Your task to perform on an android device: check android version Image 0: 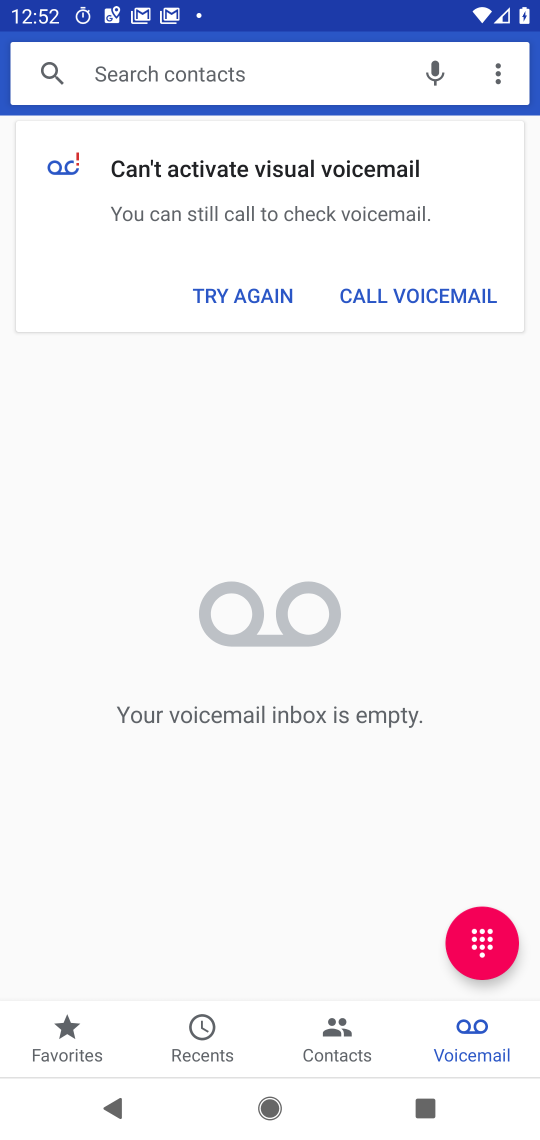
Step 0: press home button
Your task to perform on an android device: check android version Image 1: 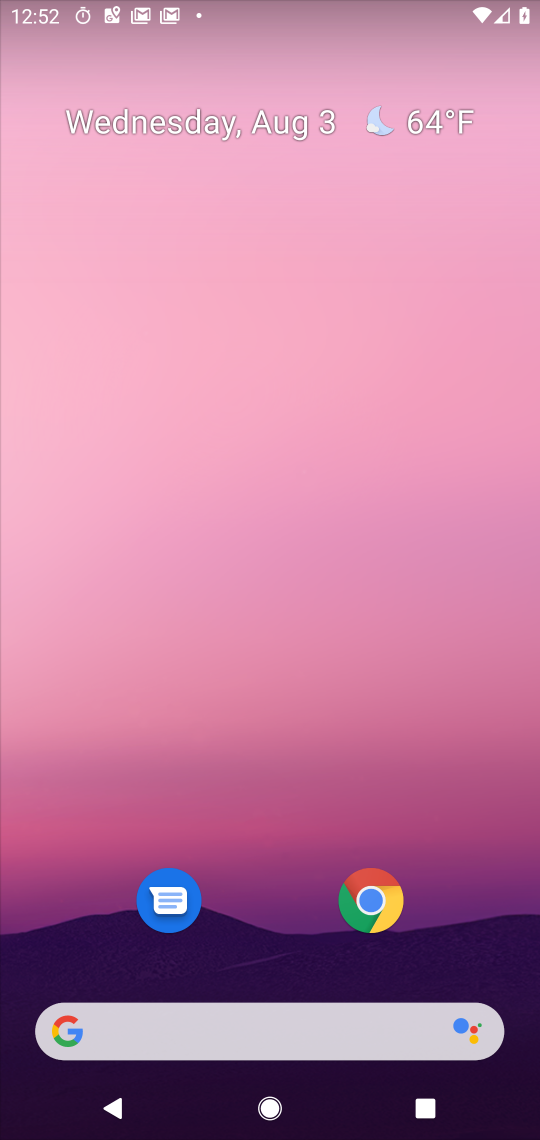
Step 1: drag from (243, 914) to (288, 81)
Your task to perform on an android device: check android version Image 2: 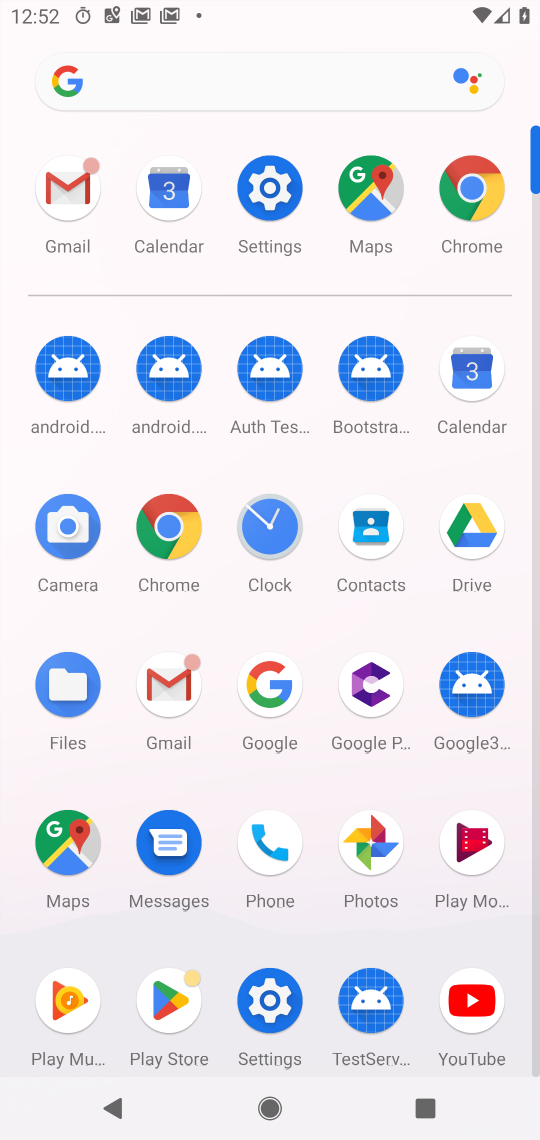
Step 2: click (264, 177)
Your task to perform on an android device: check android version Image 3: 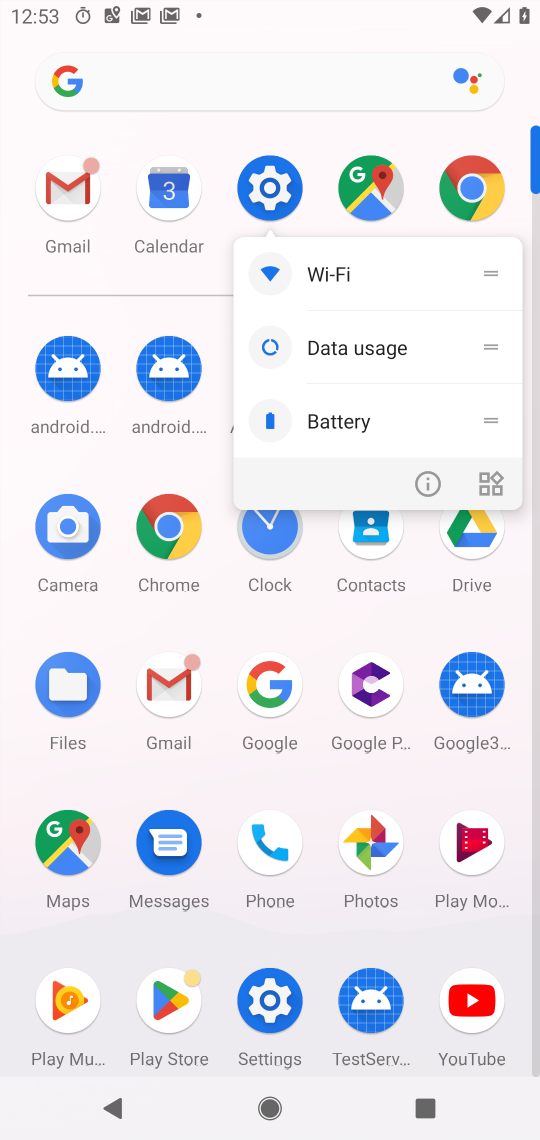
Step 3: click (276, 996)
Your task to perform on an android device: check android version Image 4: 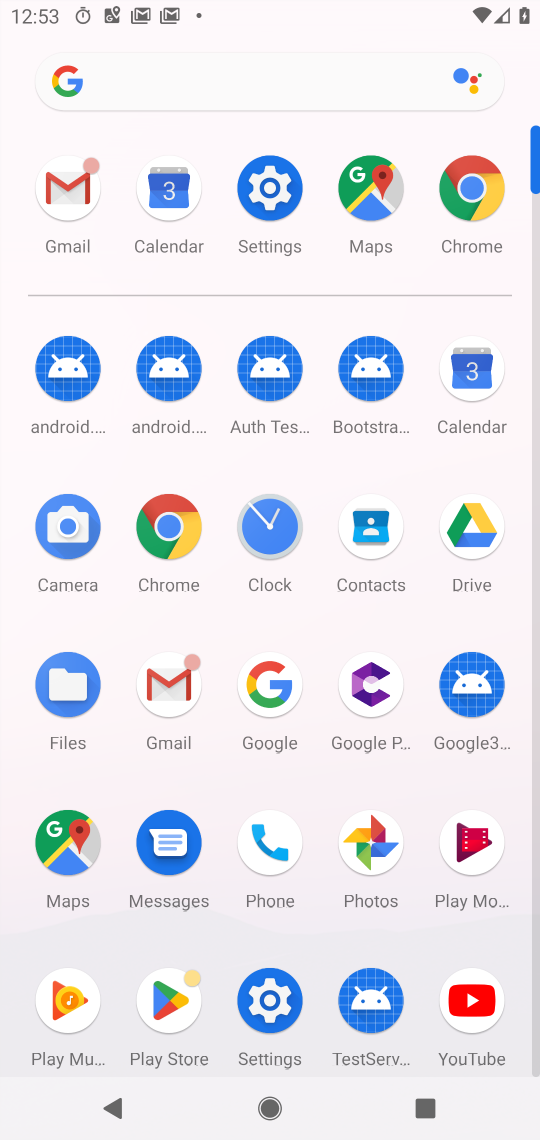
Step 4: click (271, 994)
Your task to perform on an android device: check android version Image 5: 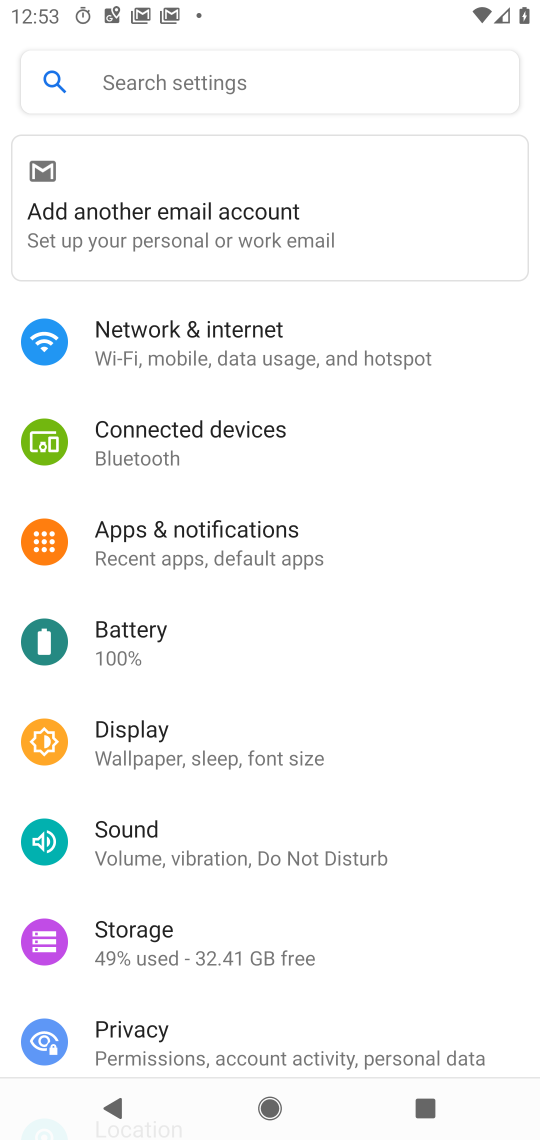
Step 5: drag from (476, 1006) to (486, 178)
Your task to perform on an android device: check android version Image 6: 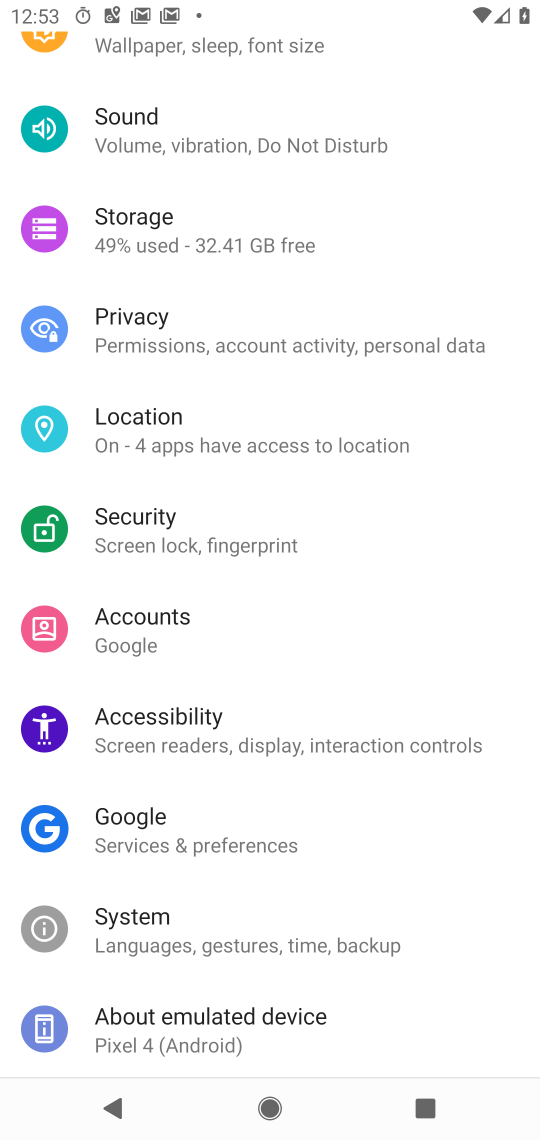
Step 6: click (260, 1022)
Your task to perform on an android device: check android version Image 7: 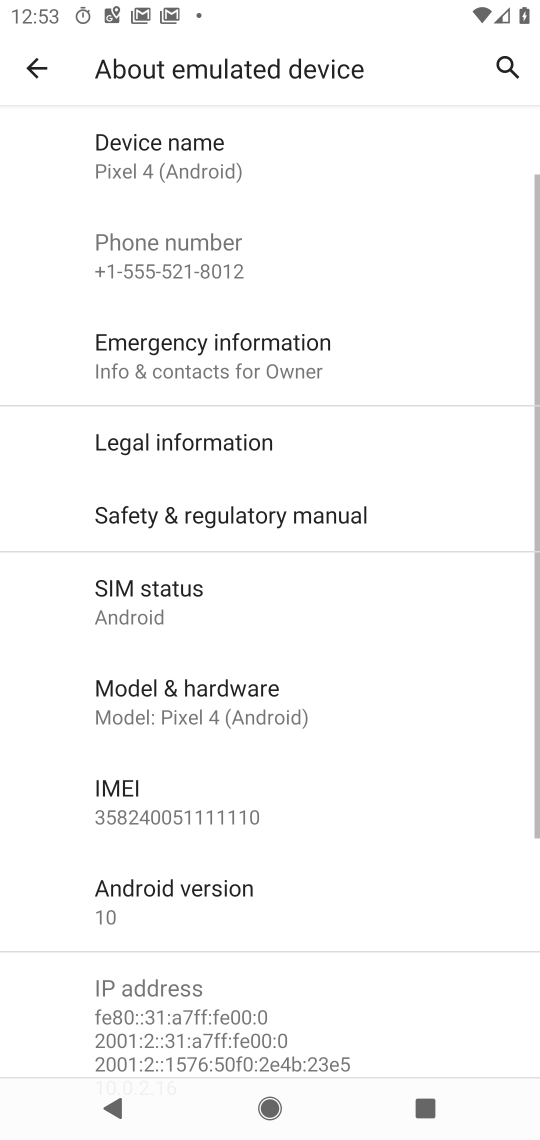
Step 7: click (210, 896)
Your task to perform on an android device: check android version Image 8: 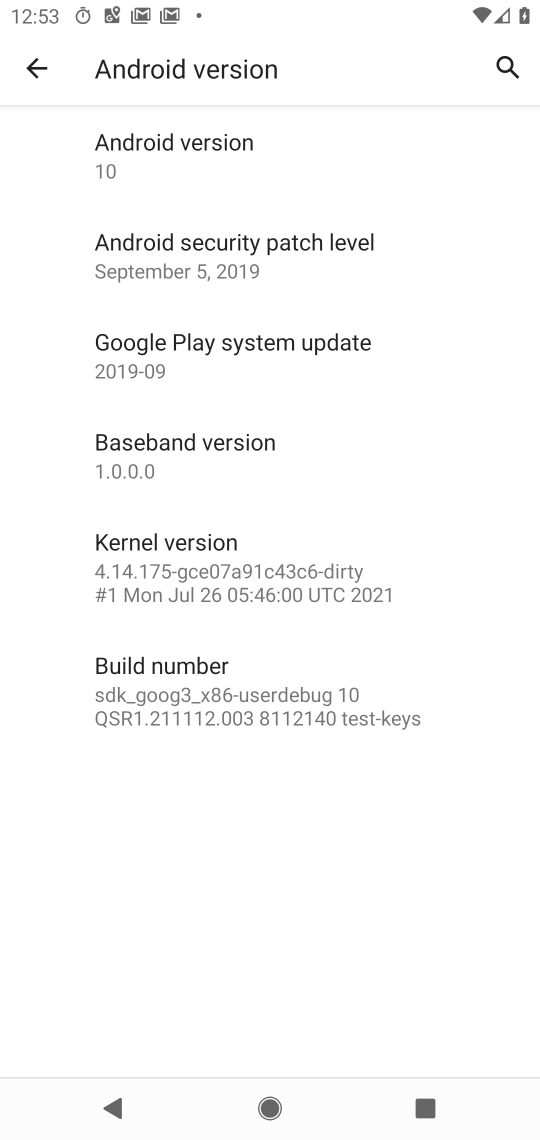
Step 8: click (190, 147)
Your task to perform on an android device: check android version Image 9: 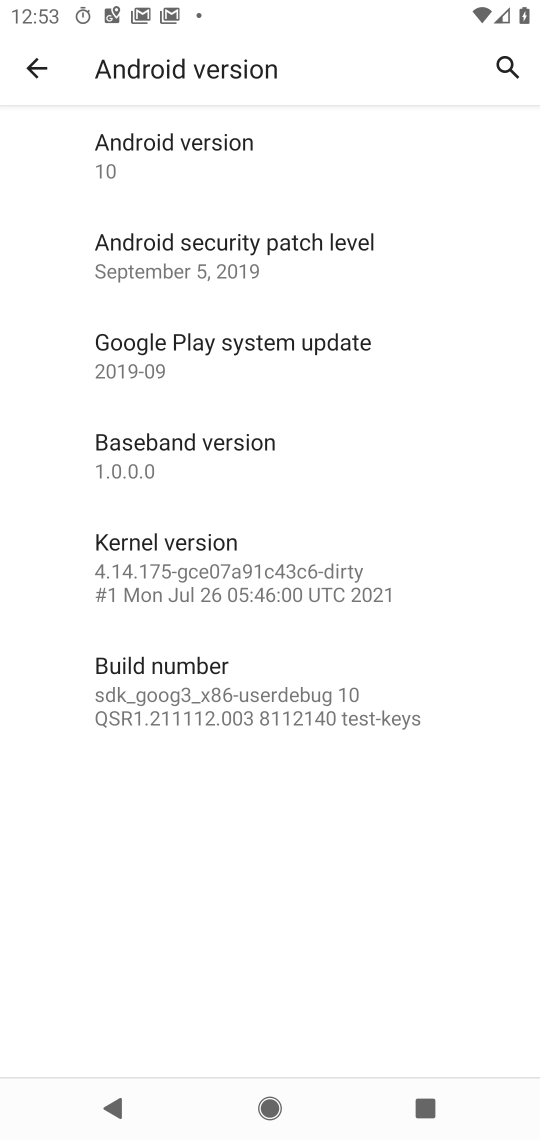
Step 9: task complete